Your task to perform on an android device: Open calendar and show me the second week of next month Image 0: 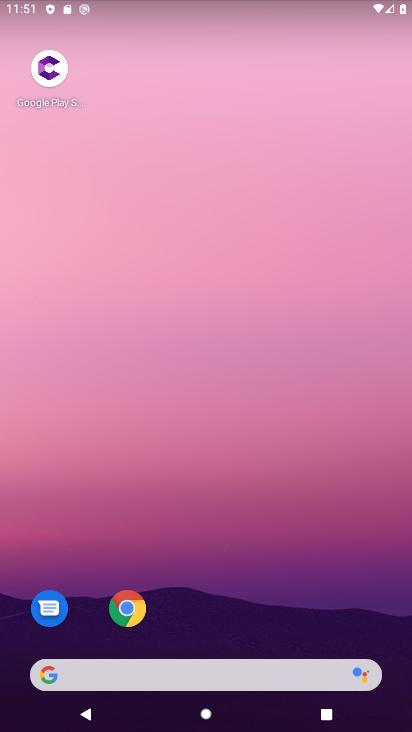
Step 0: drag from (277, 542) to (202, 60)
Your task to perform on an android device: Open calendar and show me the second week of next month Image 1: 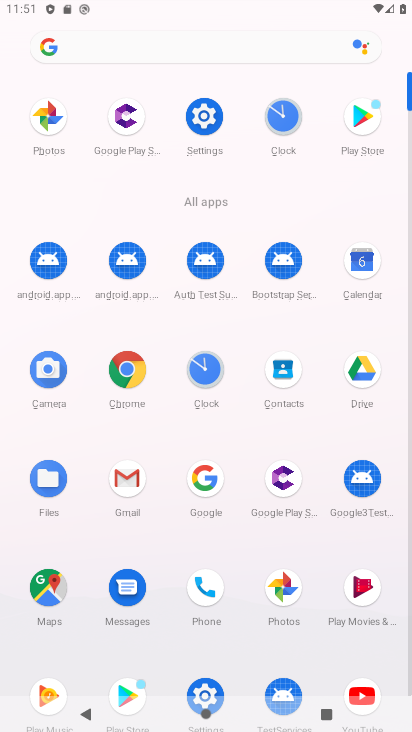
Step 1: click (361, 259)
Your task to perform on an android device: Open calendar and show me the second week of next month Image 2: 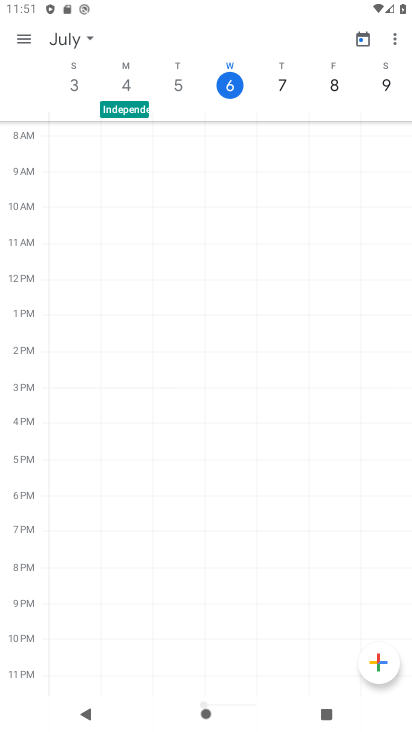
Step 2: click (86, 37)
Your task to perform on an android device: Open calendar and show me the second week of next month Image 3: 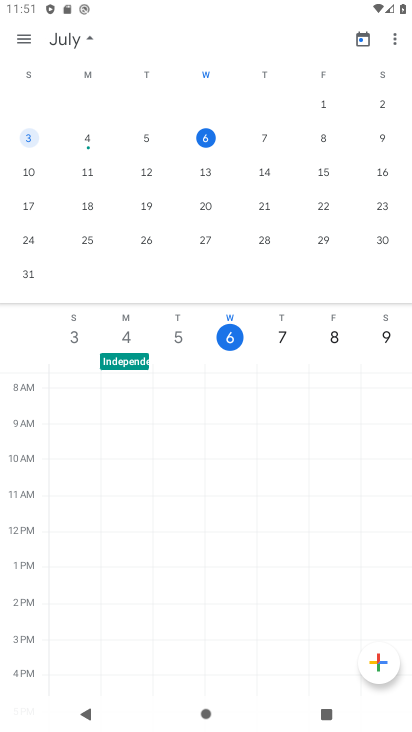
Step 3: drag from (341, 218) to (46, 132)
Your task to perform on an android device: Open calendar and show me the second week of next month Image 4: 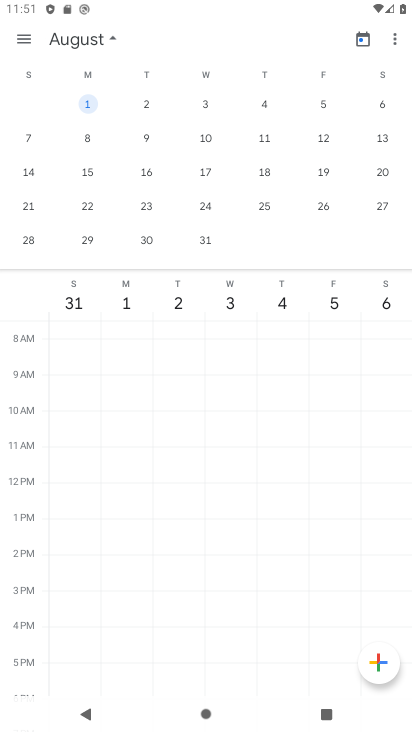
Step 4: click (145, 133)
Your task to perform on an android device: Open calendar and show me the second week of next month Image 5: 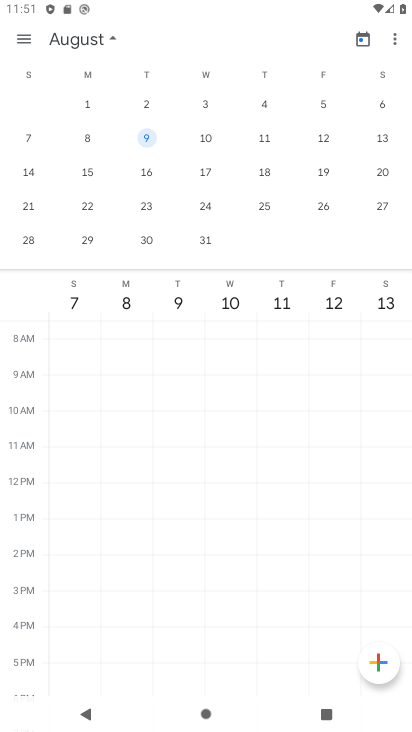
Step 5: task complete